Your task to perform on an android device: turn off airplane mode Image 0: 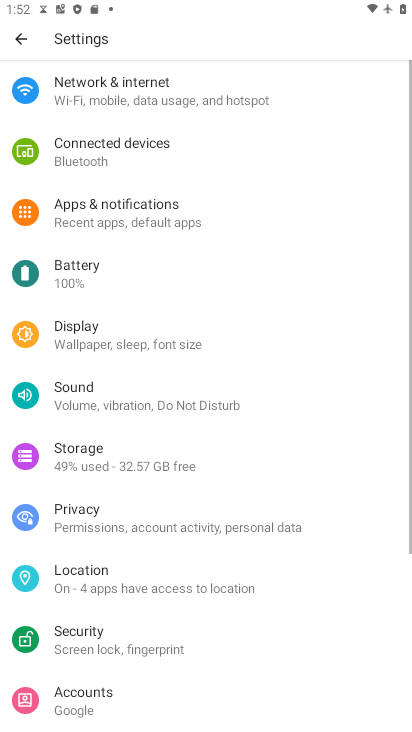
Step 0: drag from (144, 137) to (152, 431)
Your task to perform on an android device: turn off airplane mode Image 1: 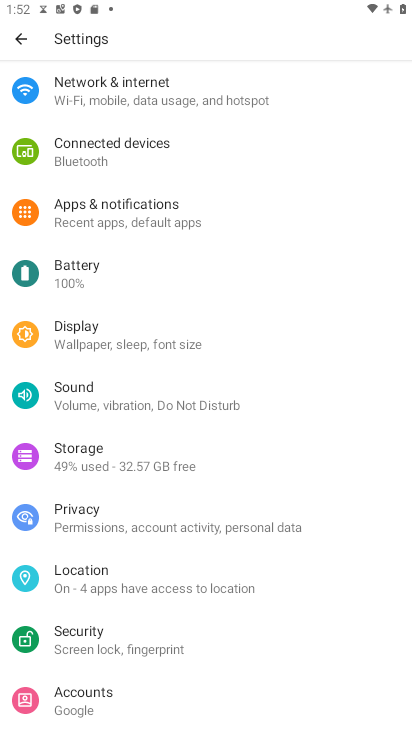
Step 1: click (98, 86)
Your task to perform on an android device: turn off airplane mode Image 2: 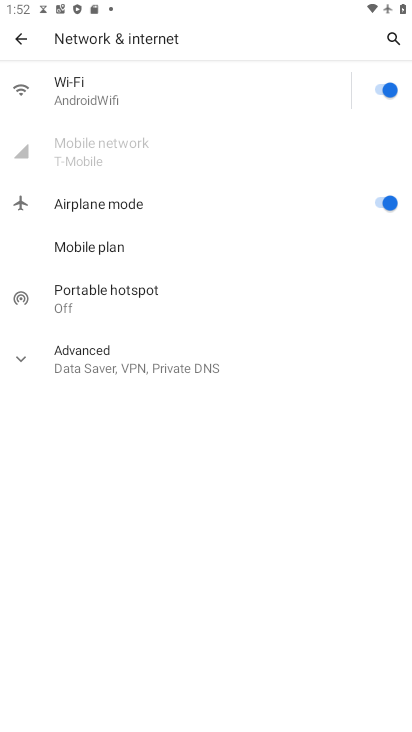
Step 2: click (380, 200)
Your task to perform on an android device: turn off airplane mode Image 3: 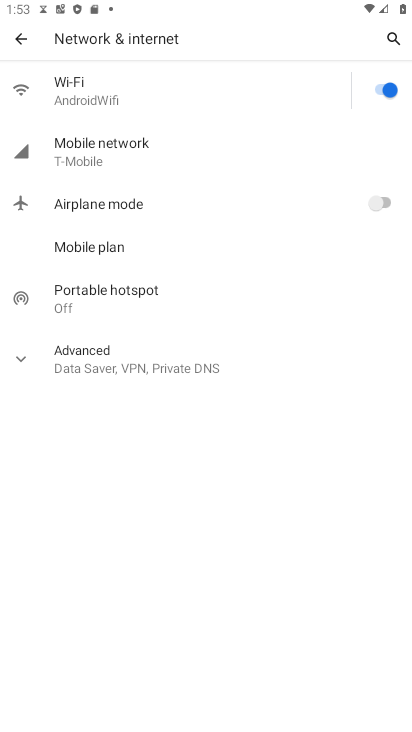
Step 3: task complete